Your task to perform on an android device: Open location settings Image 0: 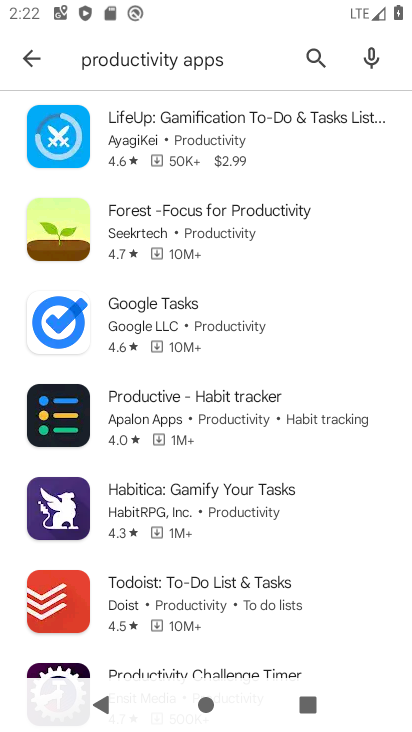
Step 0: press home button
Your task to perform on an android device: Open location settings Image 1: 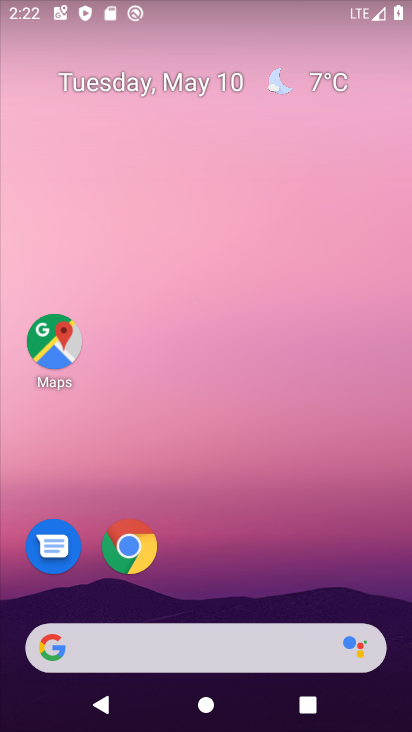
Step 1: drag from (315, 505) to (277, 18)
Your task to perform on an android device: Open location settings Image 2: 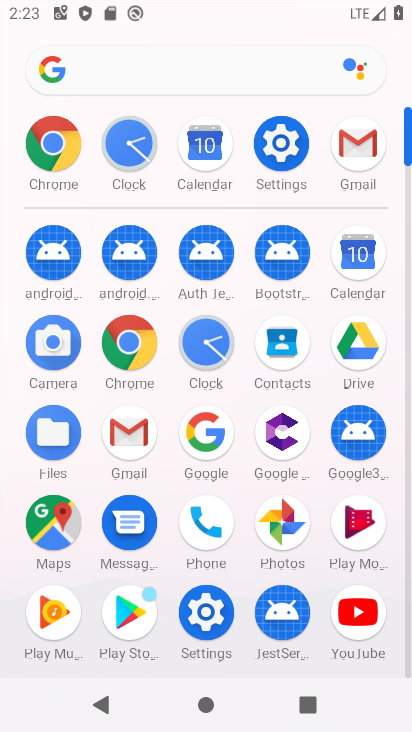
Step 2: click (273, 147)
Your task to perform on an android device: Open location settings Image 3: 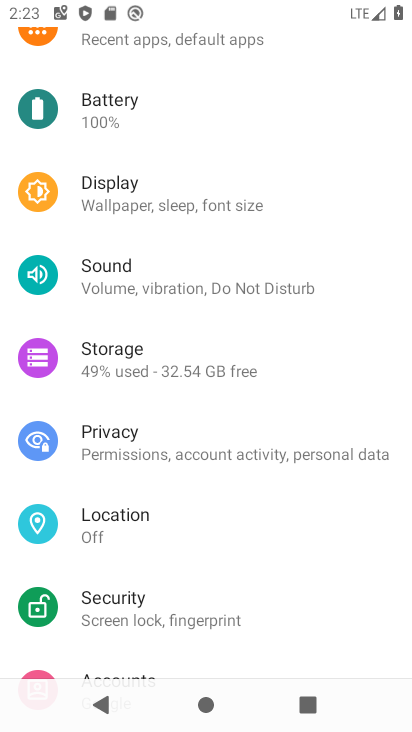
Step 3: click (152, 533)
Your task to perform on an android device: Open location settings Image 4: 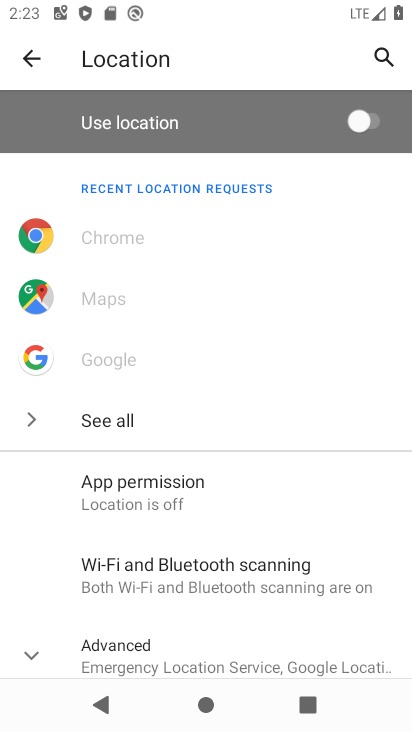
Step 4: task complete